Your task to perform on an android device: What's the weather? Image 0: 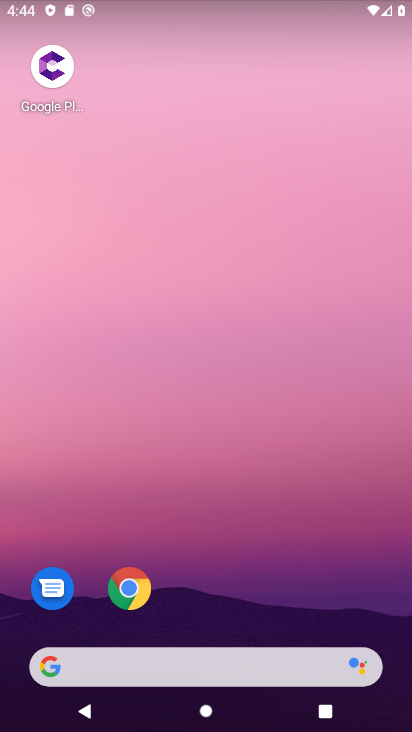
Step 0: click (220, 667)
Your task to perform on an android device: What's the weather? Image 1: 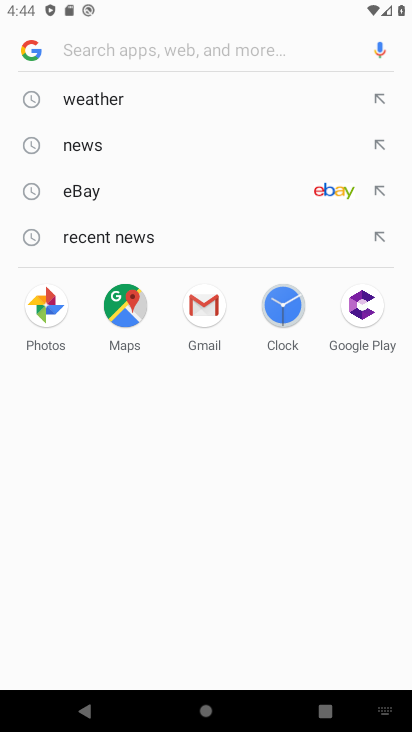
Step 1: type "What's the weather?"
Your task to perform on an android device: What's the weather? Image 2: 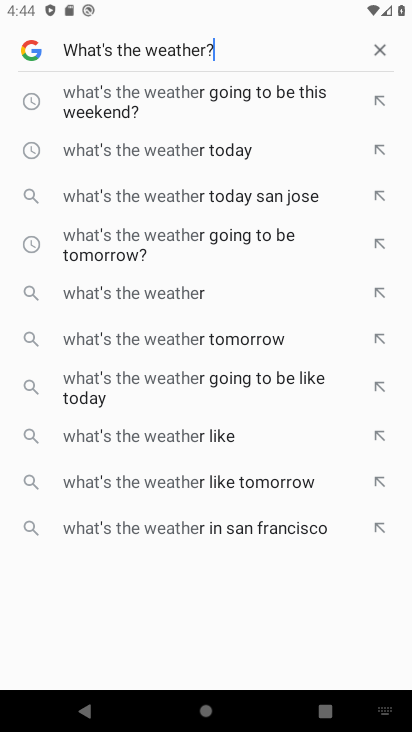
Step 2: press enter
Your task to perform on an android device: What's the weather? Image 3: 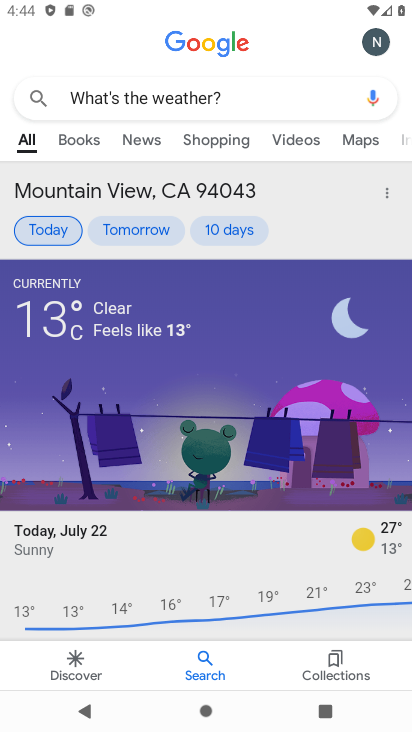
Step 3: task complete